Your task to perform on an android device: Is it going to rain today? Image 0: 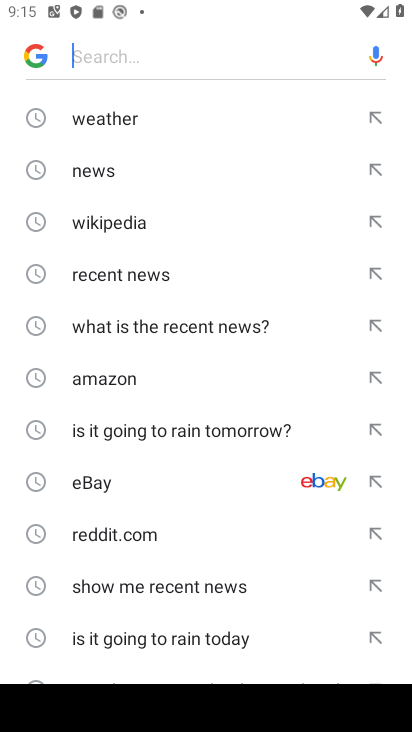
Step 0: click (214, 625)
Your task to perform on an android device: Is it going to rain today? Image 1: 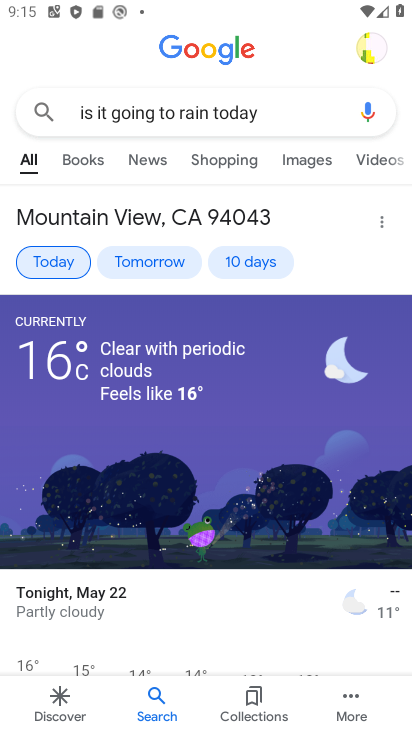
Step 1: task complete